Your task to perform on an android device: turn off javascript in the chrome app Image 0: 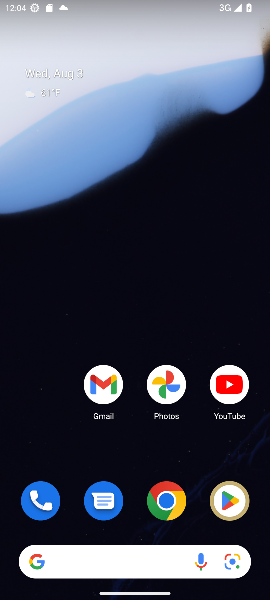
Step 0: click (175, 512)
Your task to perform on an android device: turn off javascript in the chrome app Image 1: 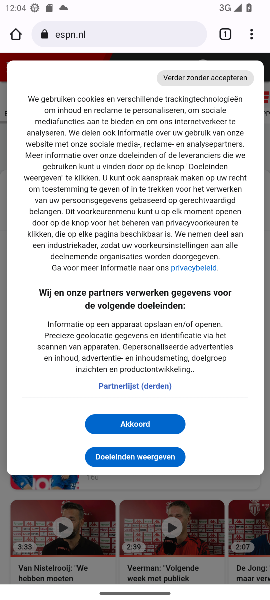
Step 1: click (251, 32)
Your task to perform on an android device: turn off javascript in the chrome app Image 2: 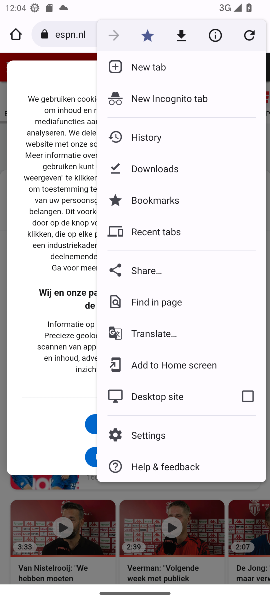
Step 2: click (168, 430)
Your task to perform on an android device: turn off javascript in the chrome app Image 3: 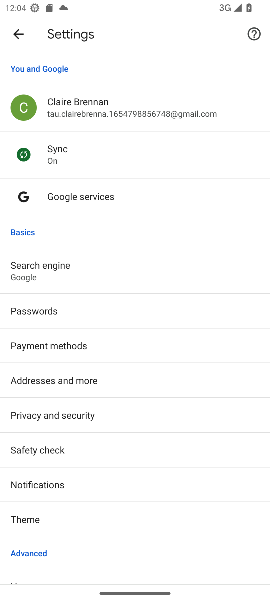
Step 3: drag from (57, 482) to (57, 259)
Your task to perform on an android device: turn off javascript in the chrome app Image 4: 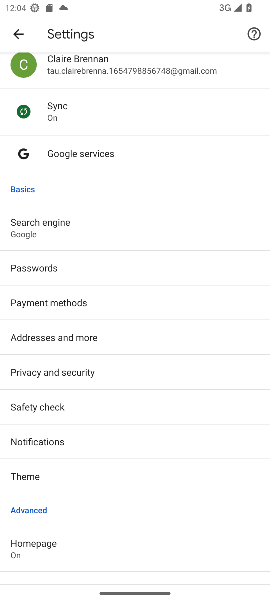
Step 4: drag from (100, 550) to (89, 183)
Your task to perform on an android device: turn off javascript in the chrome app Image 5: 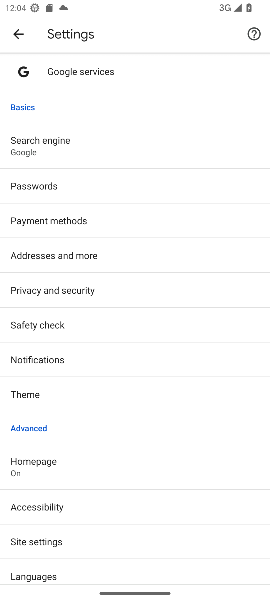
Step 5: click (69, 539)
Your task to perform on an android device: turn off javascript in the chrome app Image 6: 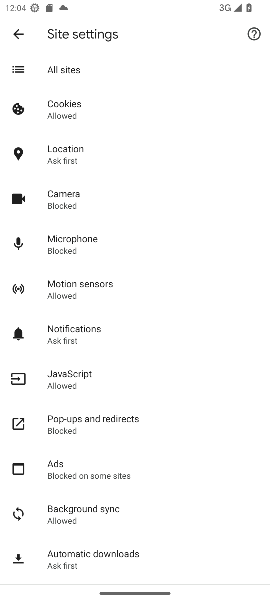
Step 6: click (89, 384)
Your task to perform on an android device: turn off javascript in the chrome app Image 7: 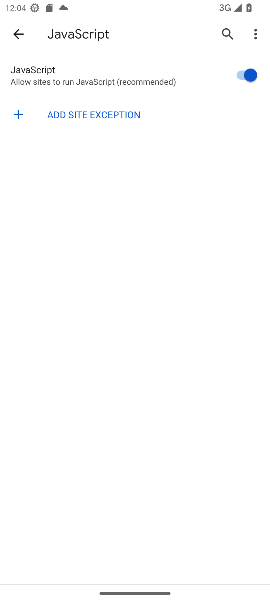
Step 7: click (244, 66)
Your task to perform on an android device: turn off javascript in the chrome app Image 8: 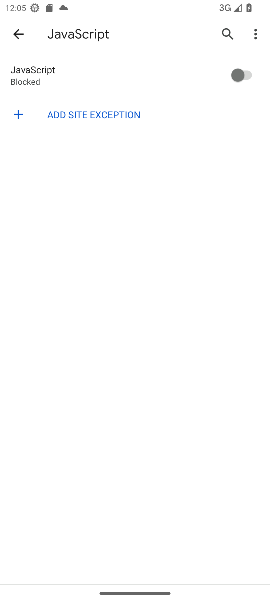
Step 8: task complete